Your task to perform on an android device: turn on translation in the chrome app Image 0: 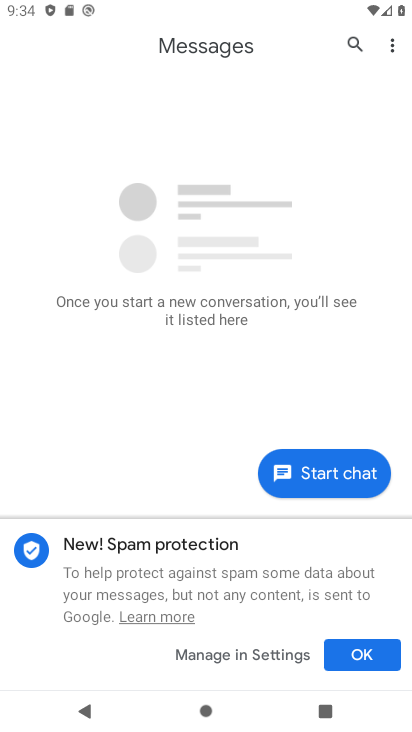
Step 0: press back button
Your task to perform on an android device: turn on translation in the chrome app Image 1: 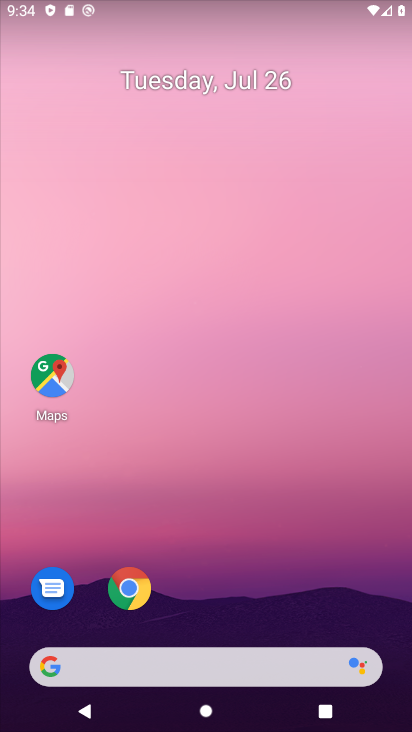
Step 1: click (123, 586)
Your task to perform on an android device: turn on translation in the chrome app Image 2: 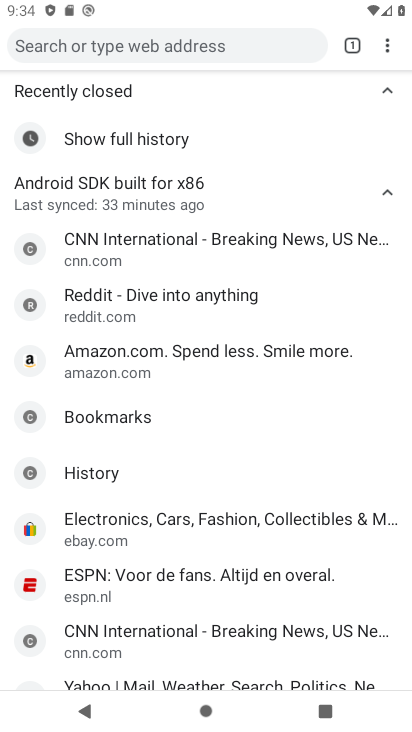
Step 2: drag from (382, 38) to (237, 375)
Your task to perform on an android device: turn on translation in the chrome app Image 3: 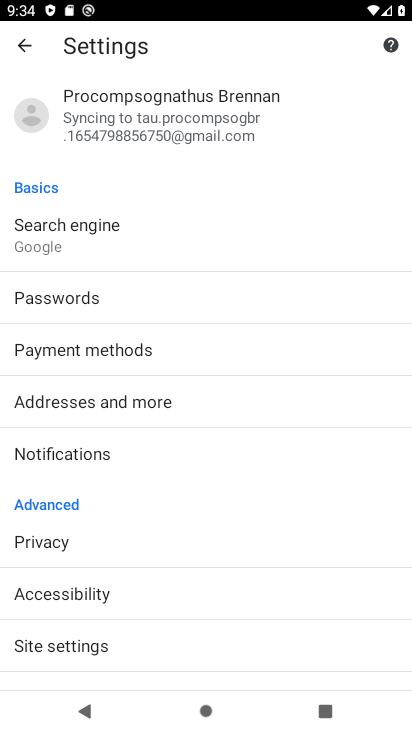
Step 3: drag from (73, 601) to (205, 121)
Your task to perform on an android device: turn on translation in the chrome app Image 4: 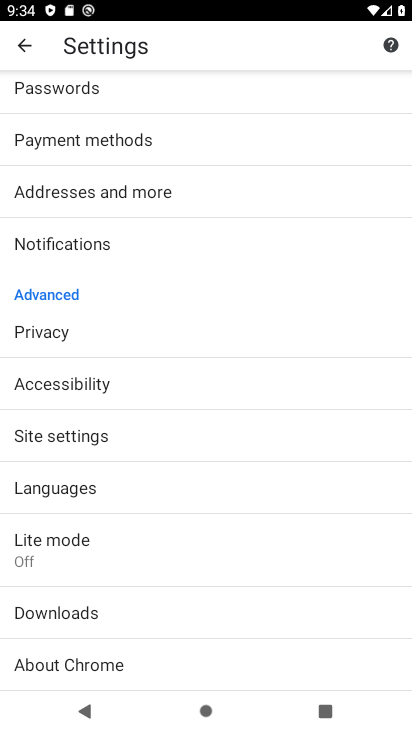
Step 4: click (64, 485)
Your task to perform on an android device: turn on translation in the chrome app Image 5: 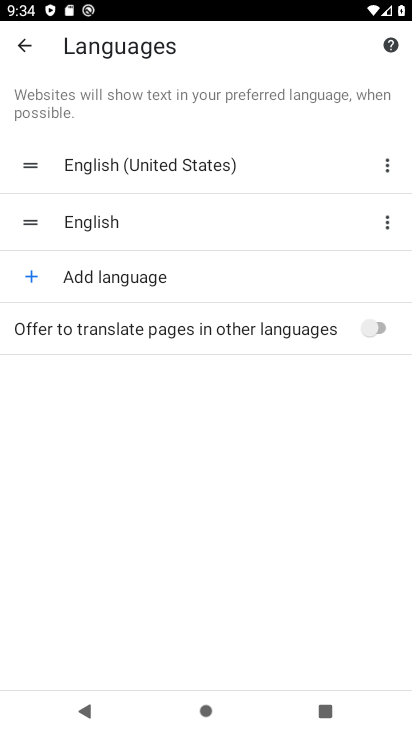
Step 5: click (375, 319)
Your task to perform on an android device: turn on translation in the chrome app Image 6: 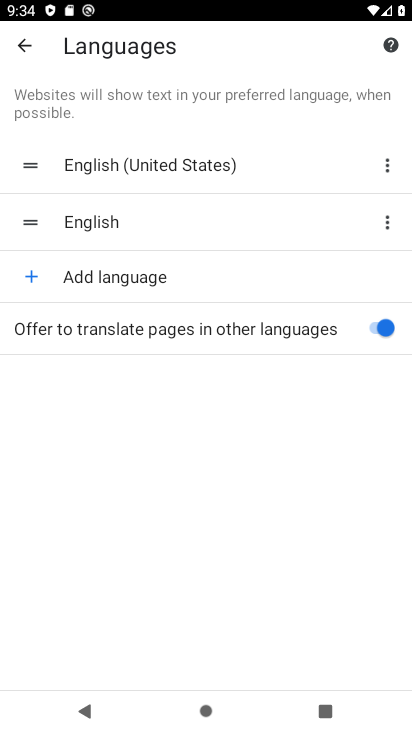
Step 6: task complete